Your task to perform on an android device: Open Google Maps Image 0: 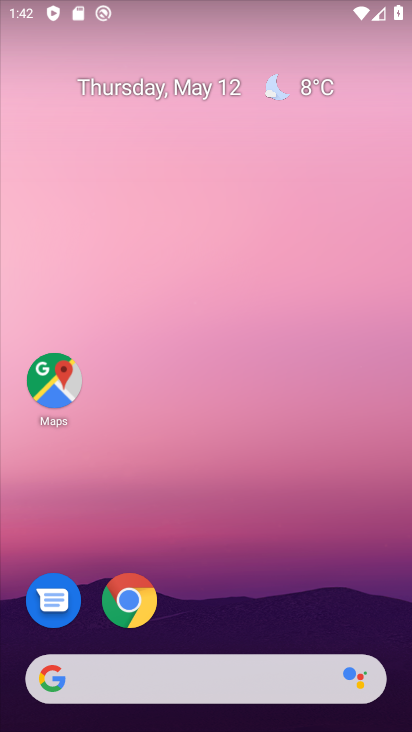
Step 0: click (67, 408)
Your task to perform on an android device: Open Google Maps Image 1: 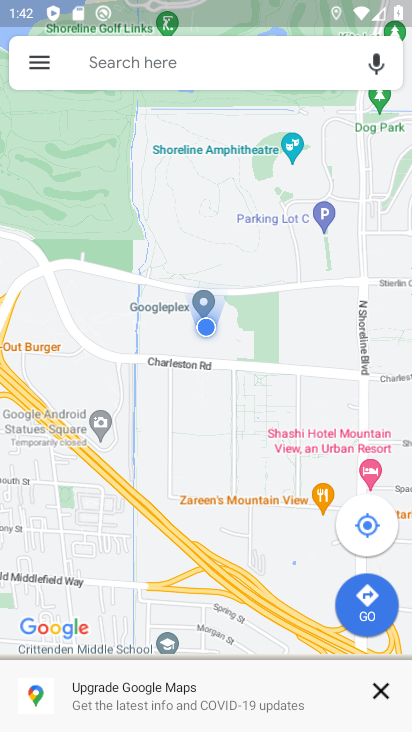
Step 1: task complete